Your task to perform on an android device: Go to Yahoo.com Image 0: 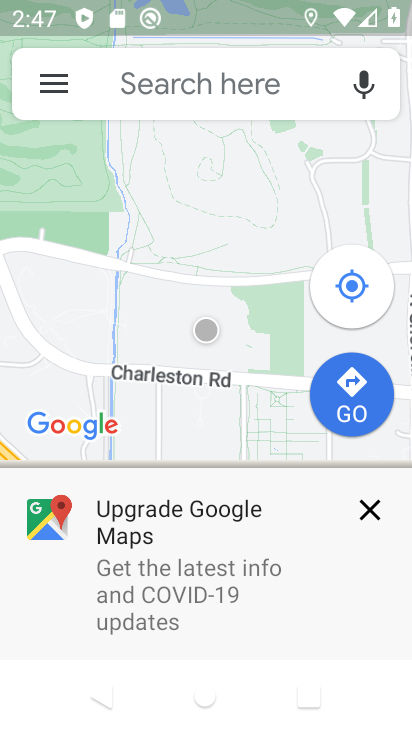
Step 0: click (345, 91)
Your task to perform on an android device: Go to Yahoo.com Image 1: 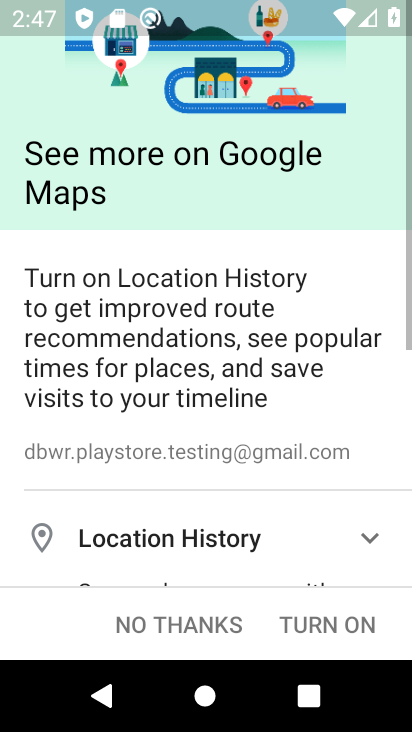
Step 1: press home button
Your task to perform on an android device: Go to Yahoo.com Image 2: 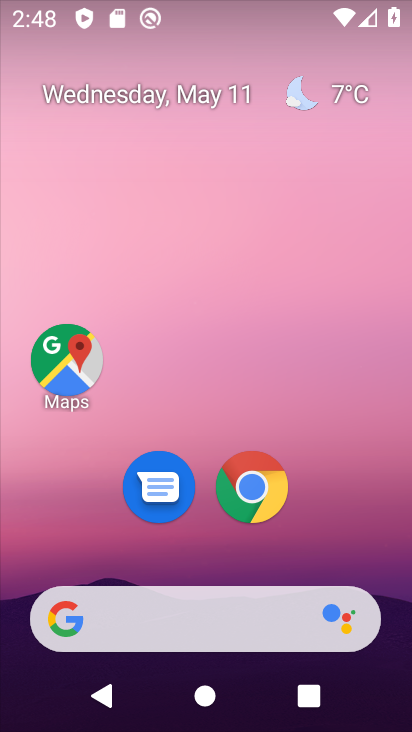
Step 2: drag from (242, 533) to (200, 89)
Your task to perform on an android device: Go to Yahoo.com Image 3: 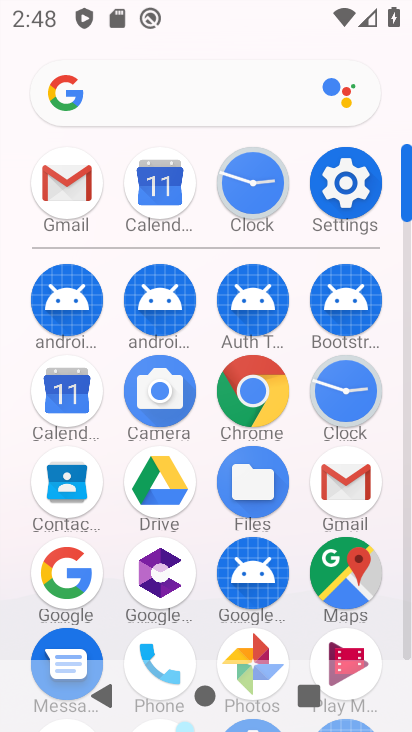
Step 3: click (258, 395)
Your task to perform on an android device: Go to Yahoo.com Image 4: 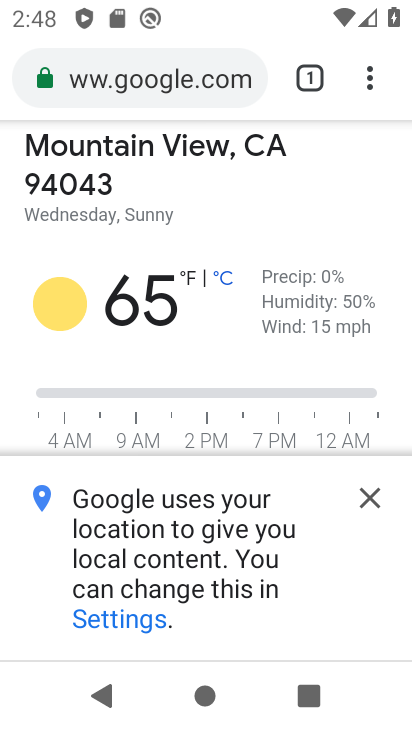
Step 4: click (174, 79)
Your task to perform on an android device: Go to Yahoo.com Image 5: 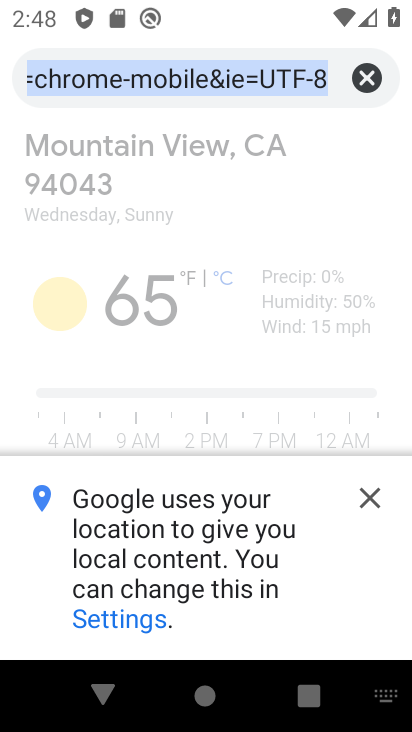
Step 5: click (367, 76)
Your task to perform on an android device: Go to Yahoo.com Image 6: 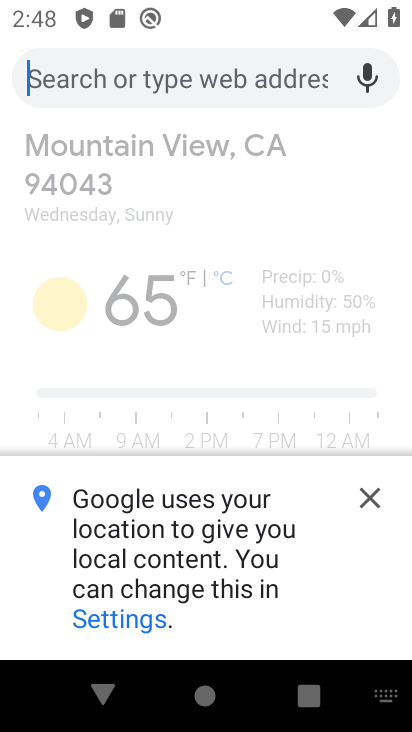
Step 6: type "yahoo.com"
Your task to perform on an android device: Go to Yahoo.com Image 7: 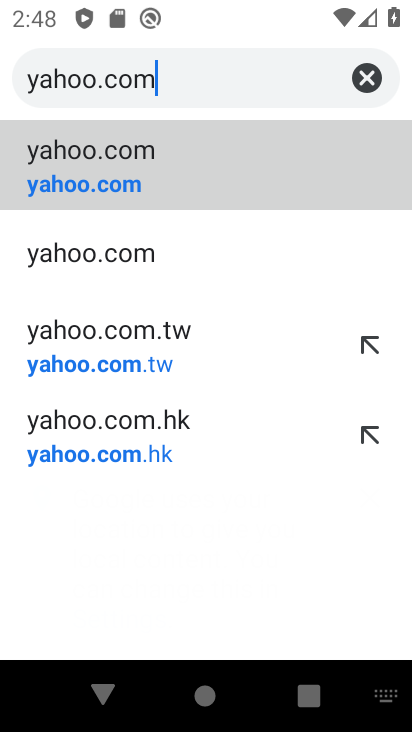
Step 7: click (134, 175)
Your task to perform on an android device: Go to Yahoo.com Image 8: 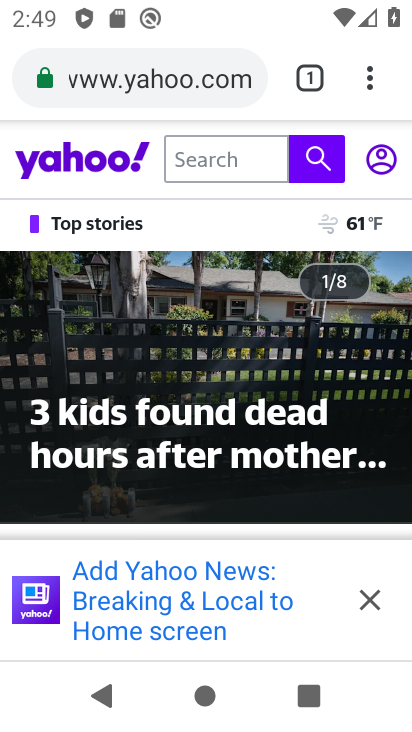
Step 8: task complete